Your task to perform on an android device: Open battery settings Image 0: 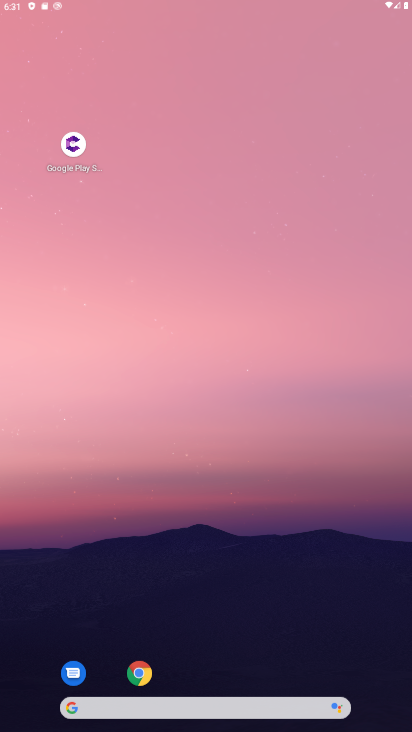
Step 0: drag from (142, 28) to (50, 0)
Your task to perform on an android device: Open battery settings Image 1: 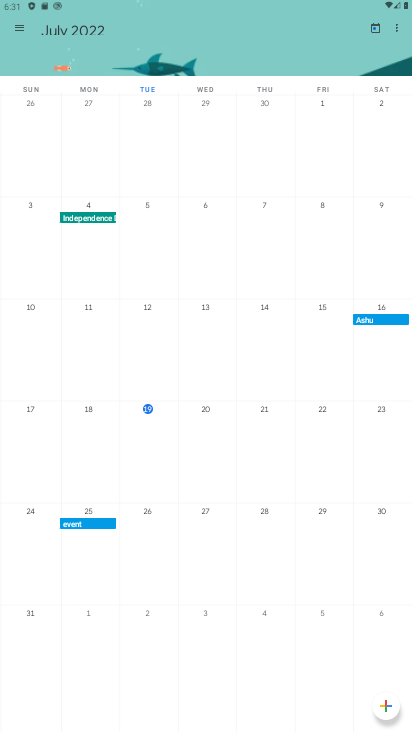
Step 1: press home button
Your task to perform on an android device: Open battery settings Image 2: 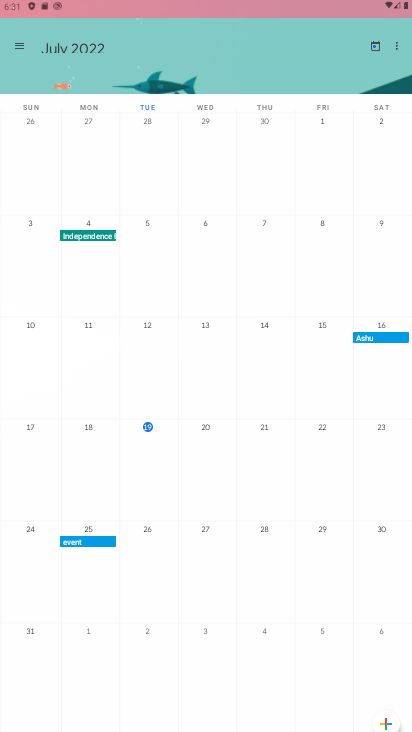
Step 2: drag from (360, 717) to (159, 0)
Your task to perform on an android device: Open battery settings Image 3: 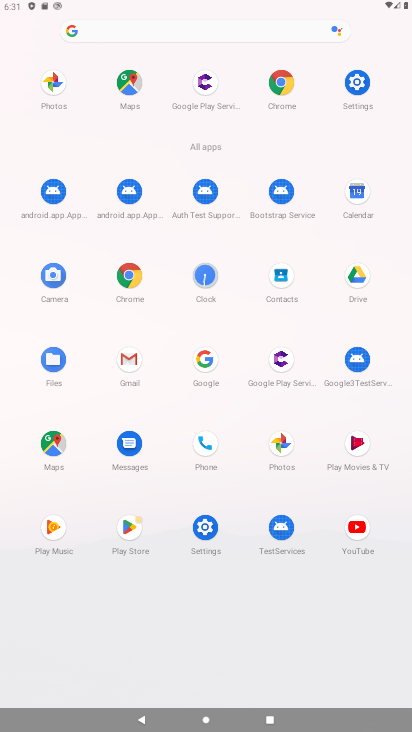
Step 3: click (206, 537)
Your task to perform on an android device: Open battery settings Image 4: 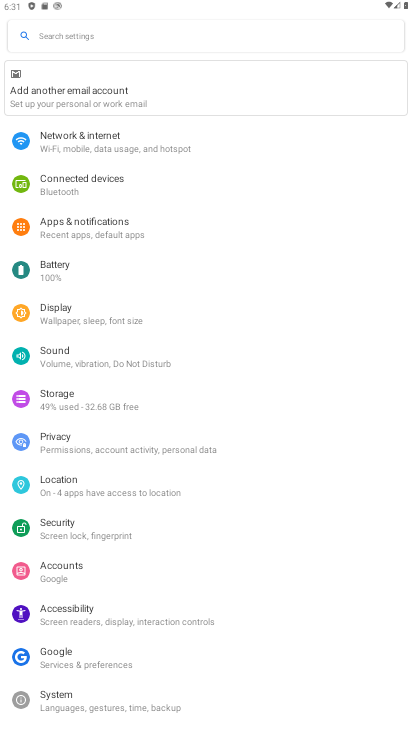
Step 4: click (52, 275)
Your task to perform on an android device: Open battery settings Image 5: 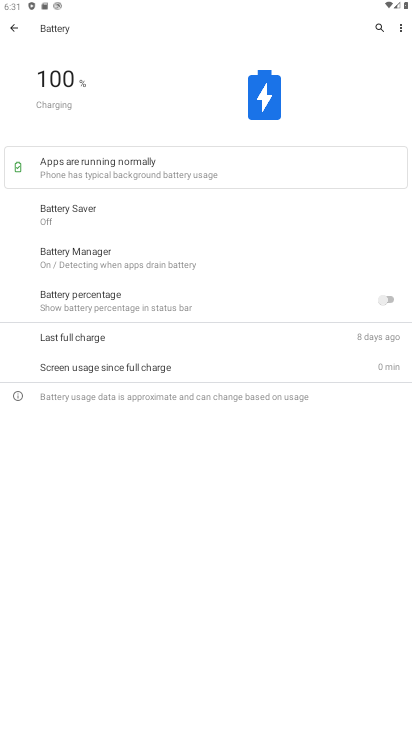
Step 5: task complete